Your task to perform on an android device: Check the weather Image 0: 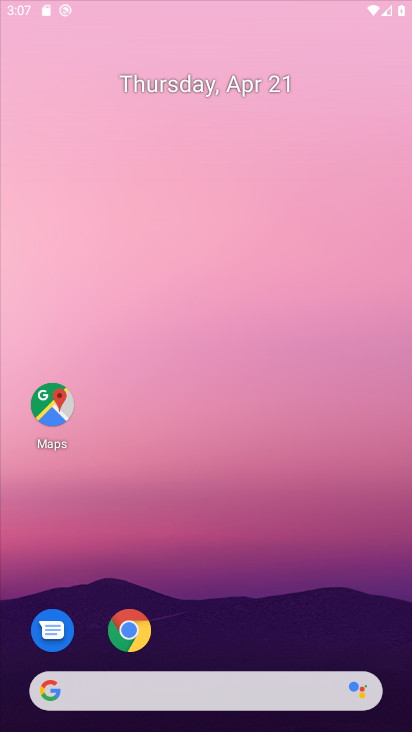
Step 0: click (349, 83)
Your task to perform on an android device: Check the weather Image 1: 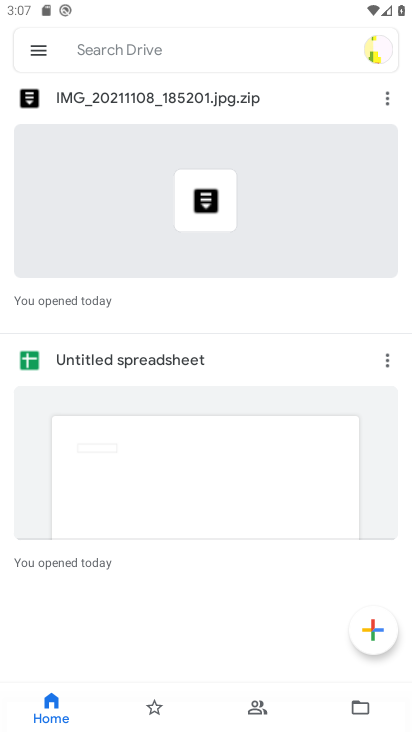
Step 1: drag from (203, 503) to (271, 172)
Your task to perform on an android device: Check the weather Image 2: 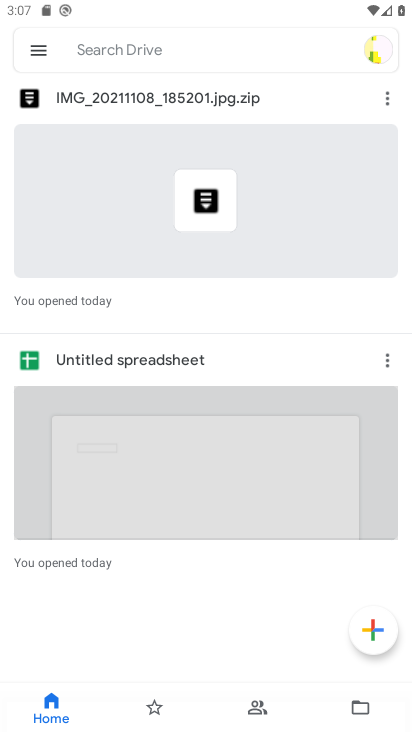
Step 2: drag from (255, 204) to (271, 452)
Your task to perform on an android device: Check the weather Image 3: 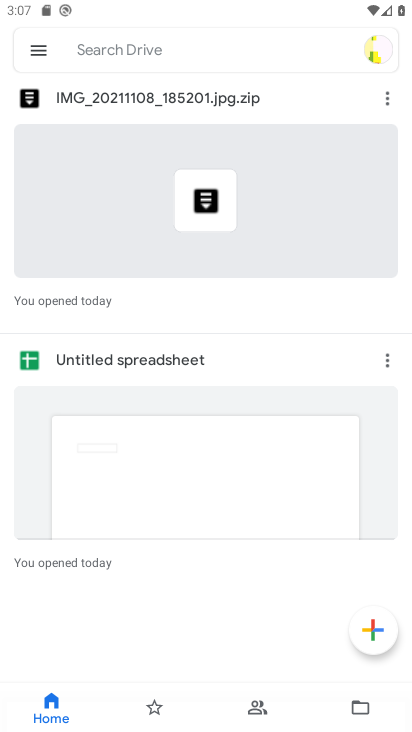
Step 3: press home button
Your task to perform on an android device: Check the weather Image 4: 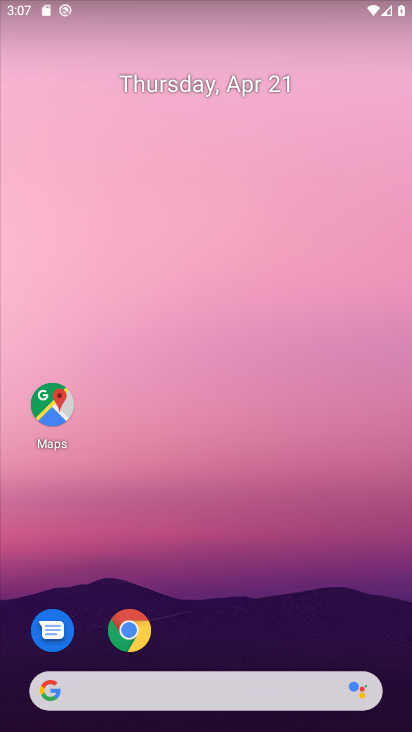
Step 4: drag from (207, 238) to (230, 64)
Your task to perform on an android device: Check the weather Image 5: 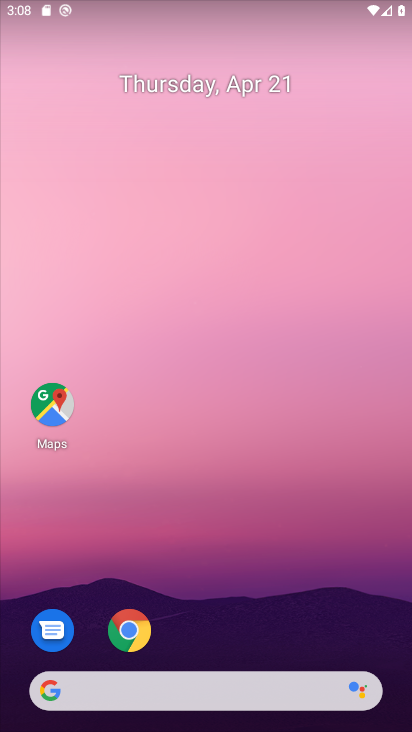
Step 5: click (127, 620)
Your task to perform on an android device: Check the weather Image 6: 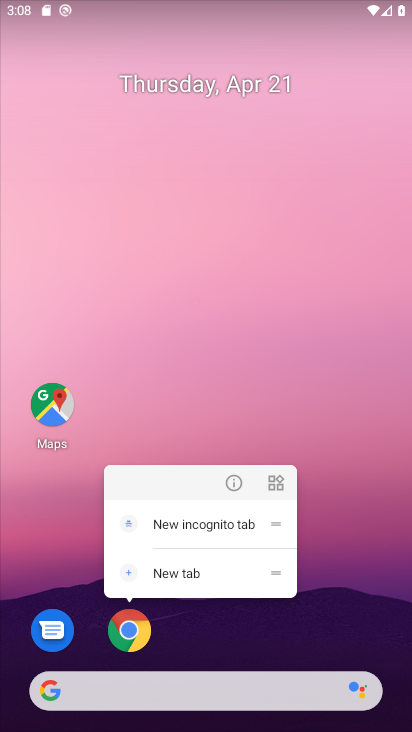
Step 6: click (224, 484)
Your task to perform on an android device: Check the weather Image 7: 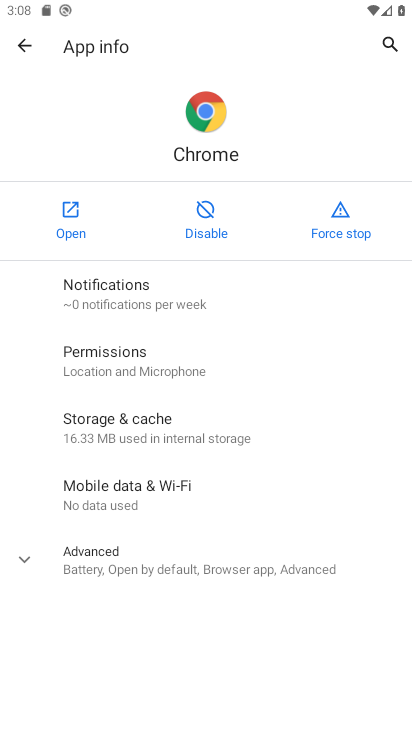
Step 7: click (77, 217)
Your task to perform on an android device: Check the weather Image 8: 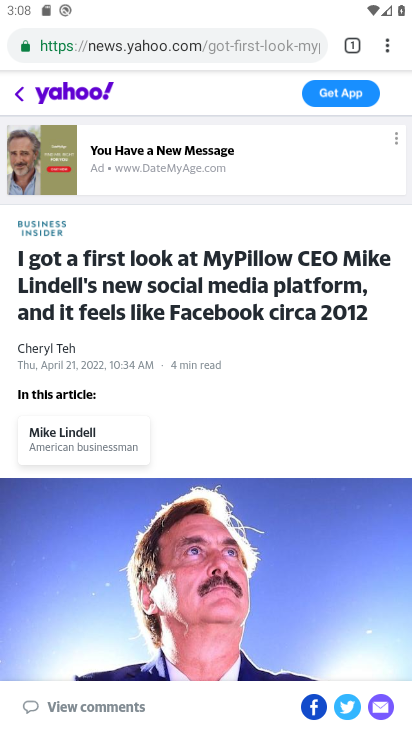
Step 8: drag from (205, 326) to (276, 586)
Your task to perform on an android device: Check the weather Image 9: 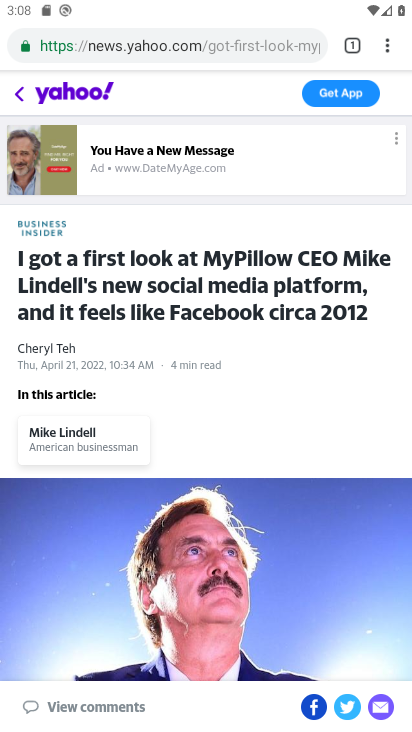
Step 9: click (186, 56)
Your task to perform on an android device: Check the weather Image 10: 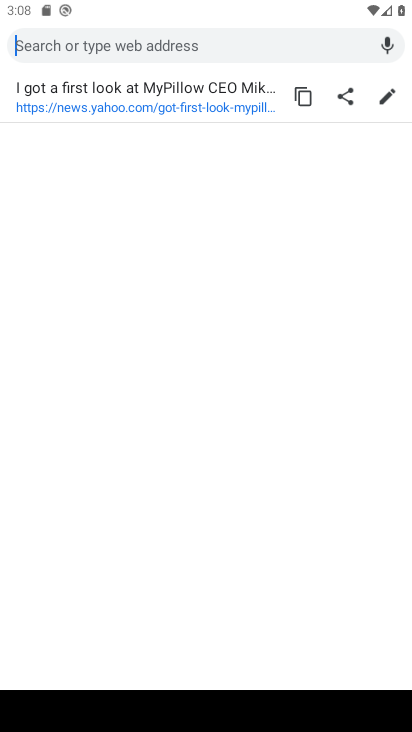
Step 10: type "weather "
Your task to perform on an android device: Check the weather Image 11: 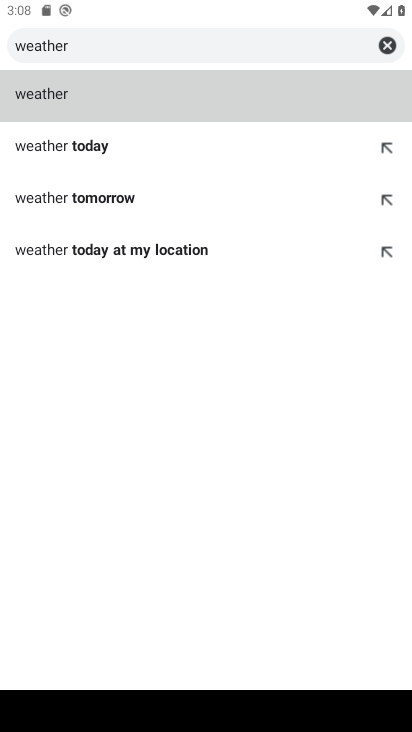
Step 11: click (33, 101)
Your task to perform on an android device: Check the weather Image 12: 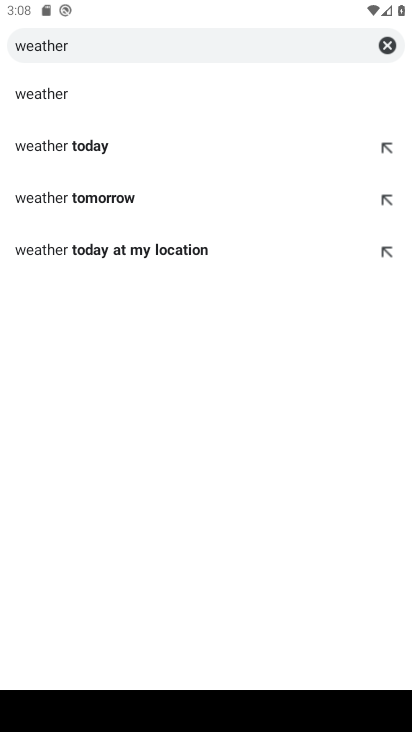
Step 12: click (49, 78)
Your task to perform on an android device: Check the weather Image 13: 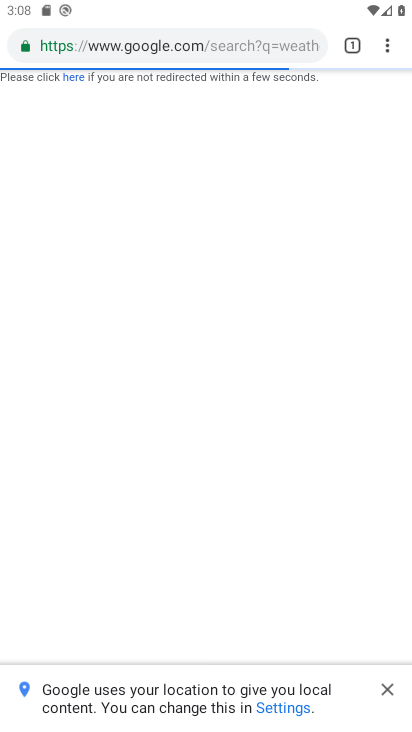
Step 13: task complete